Your task to perform on an android device: Search for "razer blade" on walmart.com, select the first entry, add it to the cart, then select checkout. Image 0: 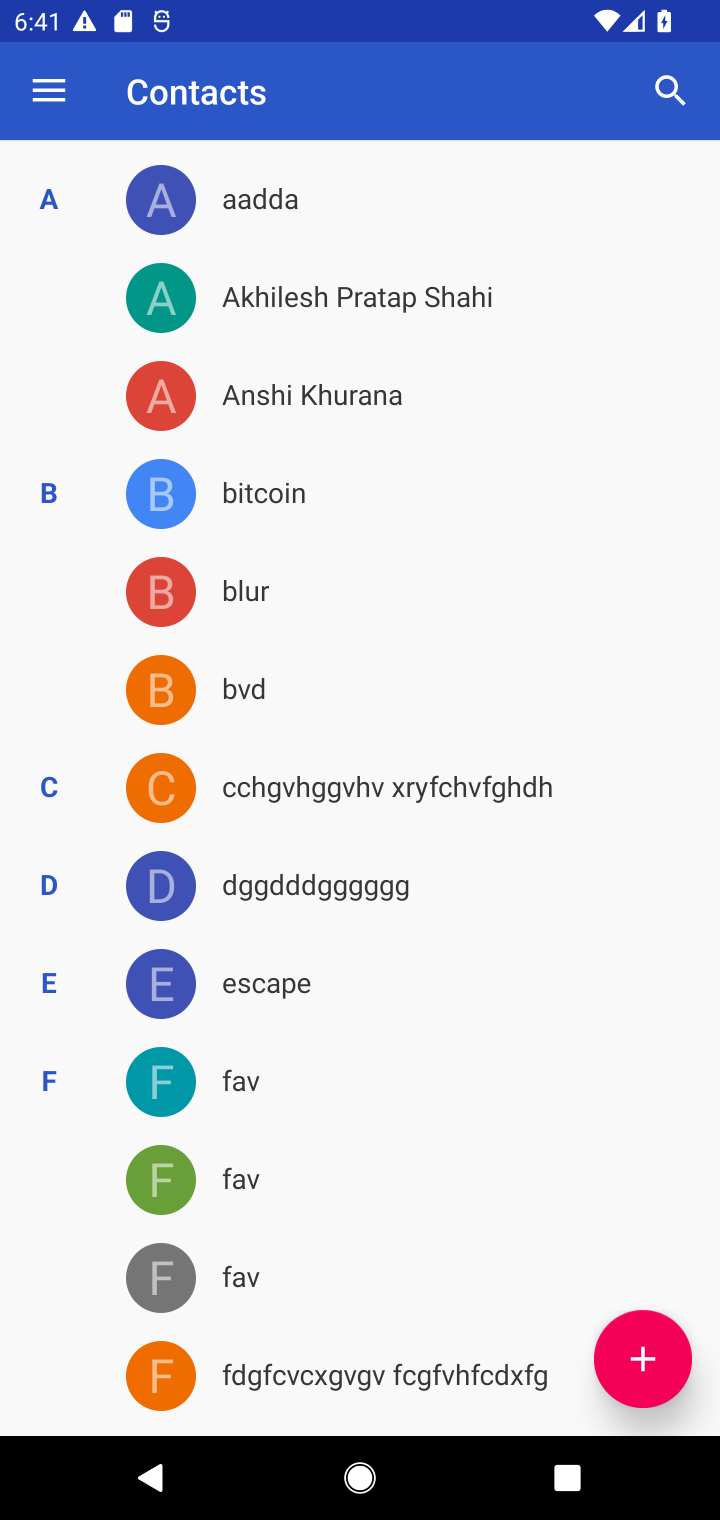
Step 0: press home button
Your task to perform on an android device: Search for "razer blade" on walmart.com, select the first entry, add it to the cart, then select checkout. Image 1: 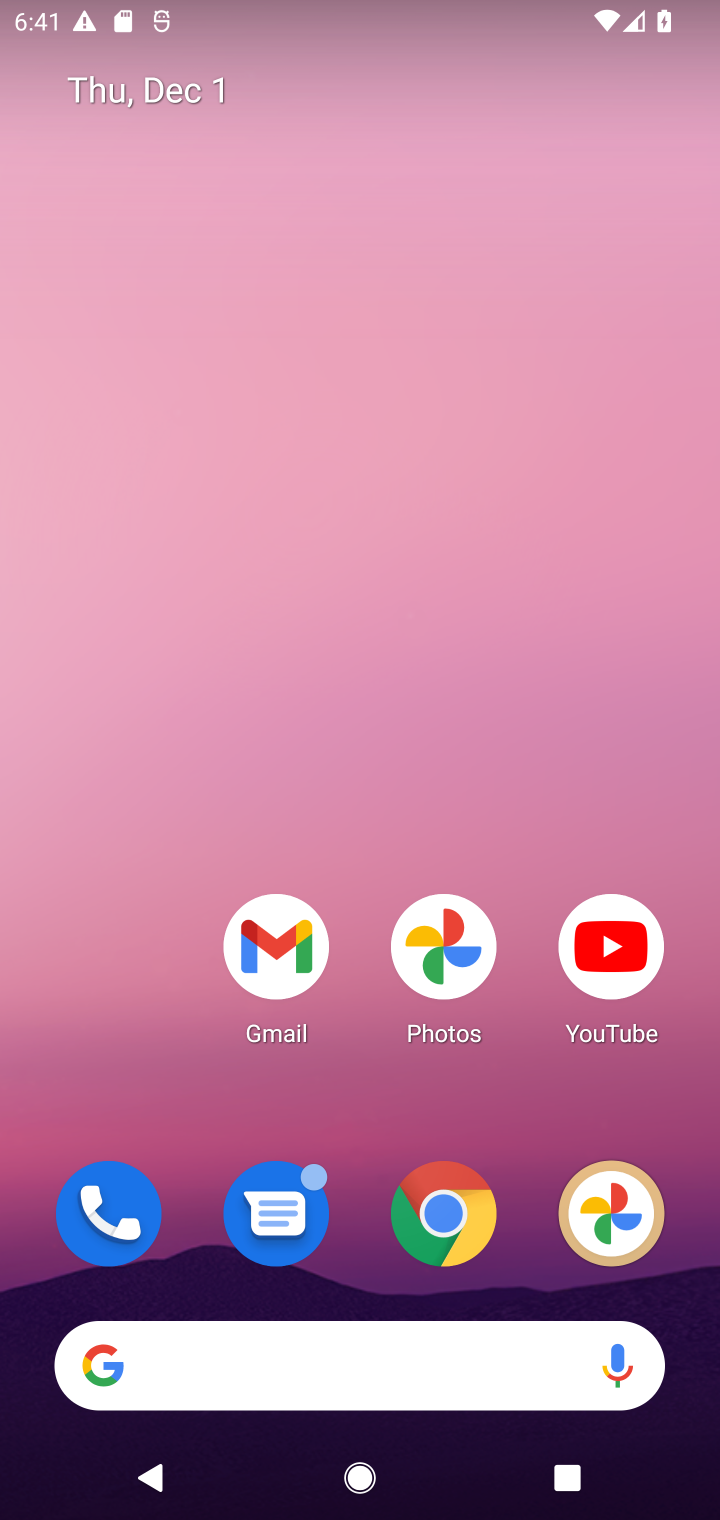
Step 1: click (435, 1344)
Your task to perform on an android device: Search for "razer blade" on walmart.com, select the first entry, add it to the cart, then select checkout. Image 2: 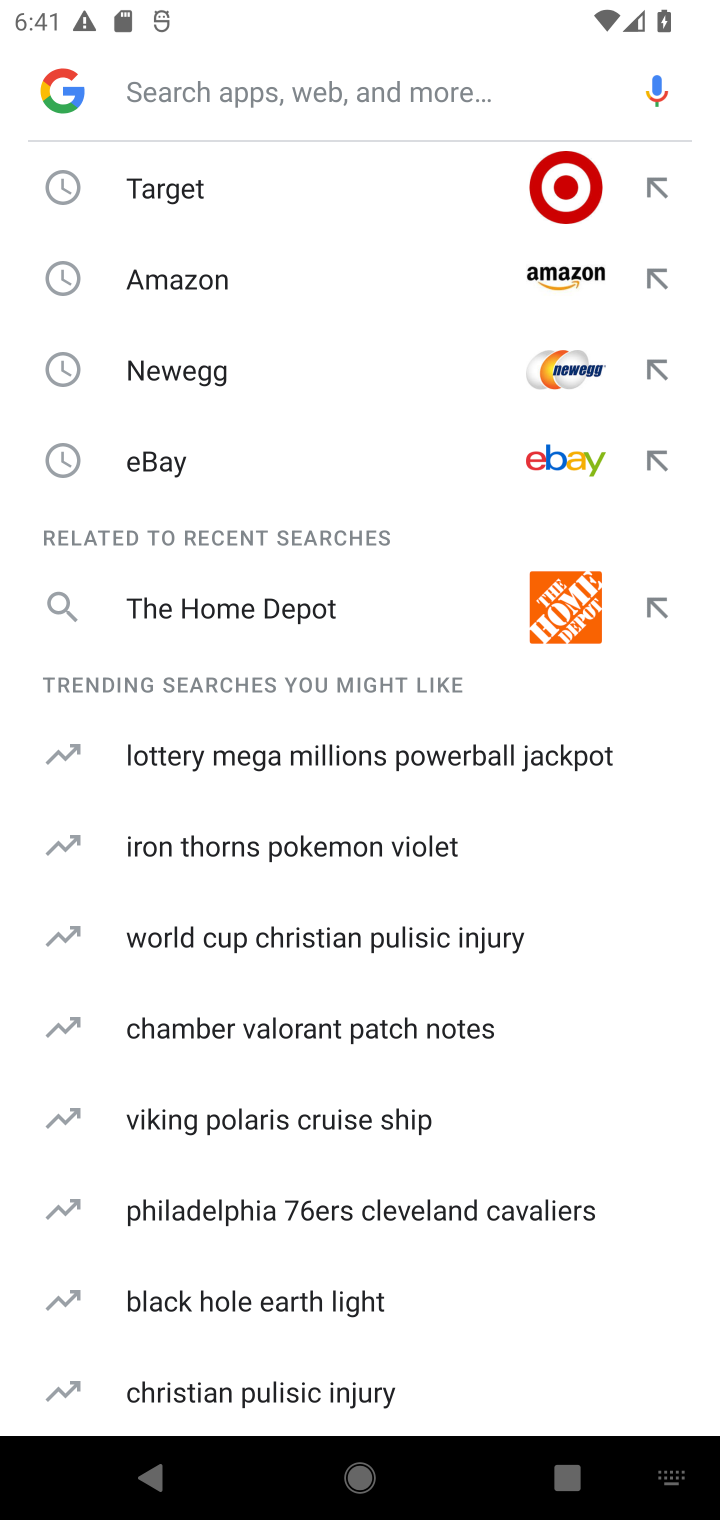
Step 2: type "walmart"
Your task to perform on an android device: Search for "razer blade" on walmart.com, select the first entry, add it to the cart, then select checkout. Image 3: 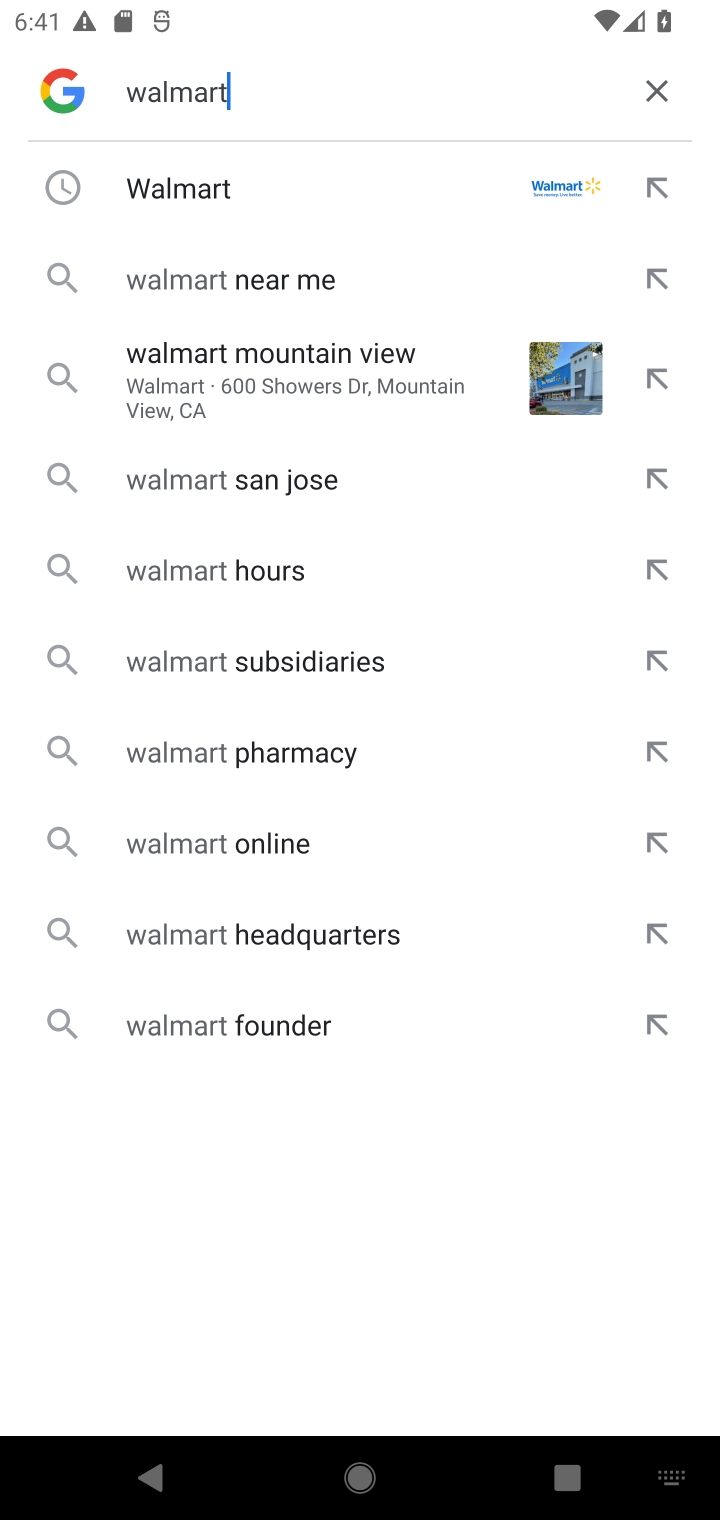
Step 3: click (140, 181)
Your task to perform on an android device: Search for "razer blade" on walmart.com, select the first entry, add it to the cart, then select checkout. Image 4: 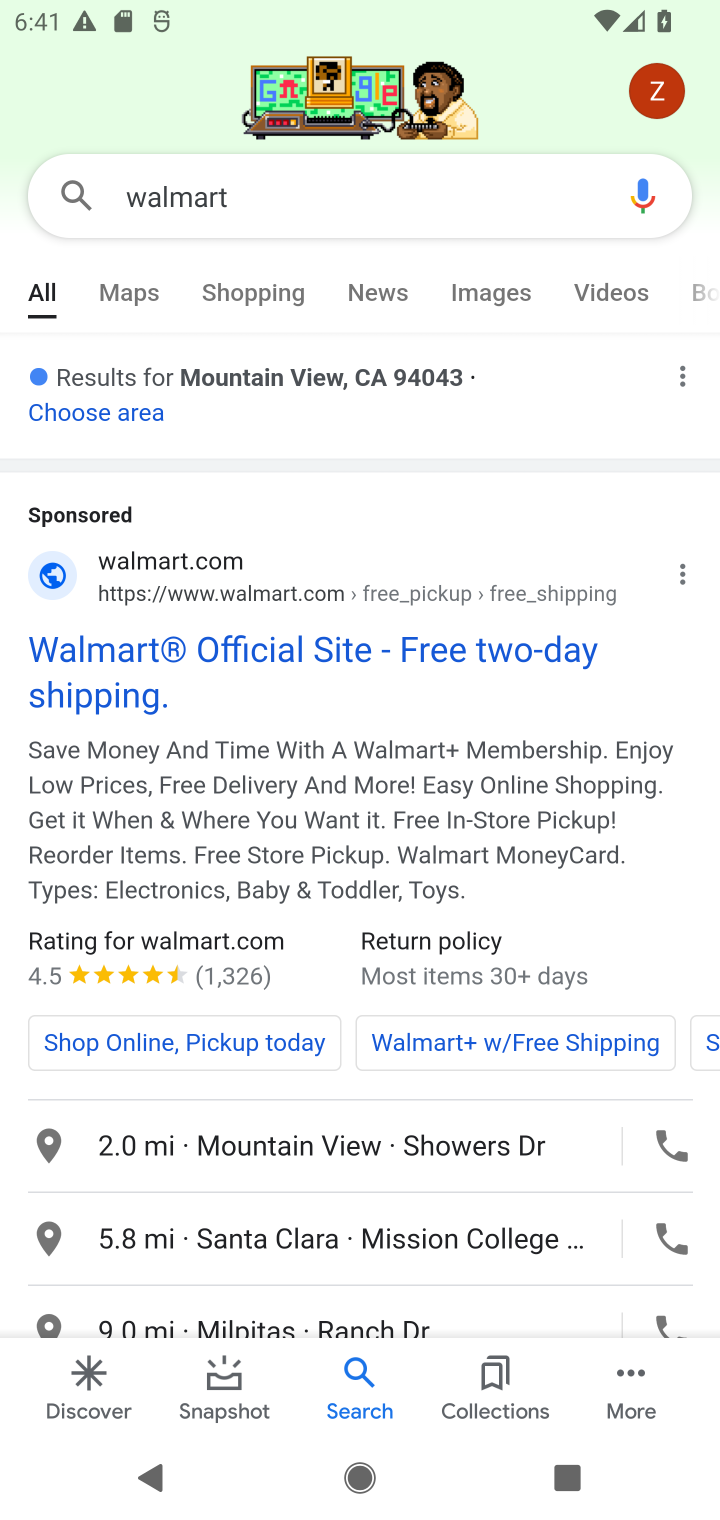
Step 4: click (151, 636)
Your task to perform on an android device: Search for "razer blade" on walmart.com, select the first entry, add it to the cart, then select checkout. Image 5: 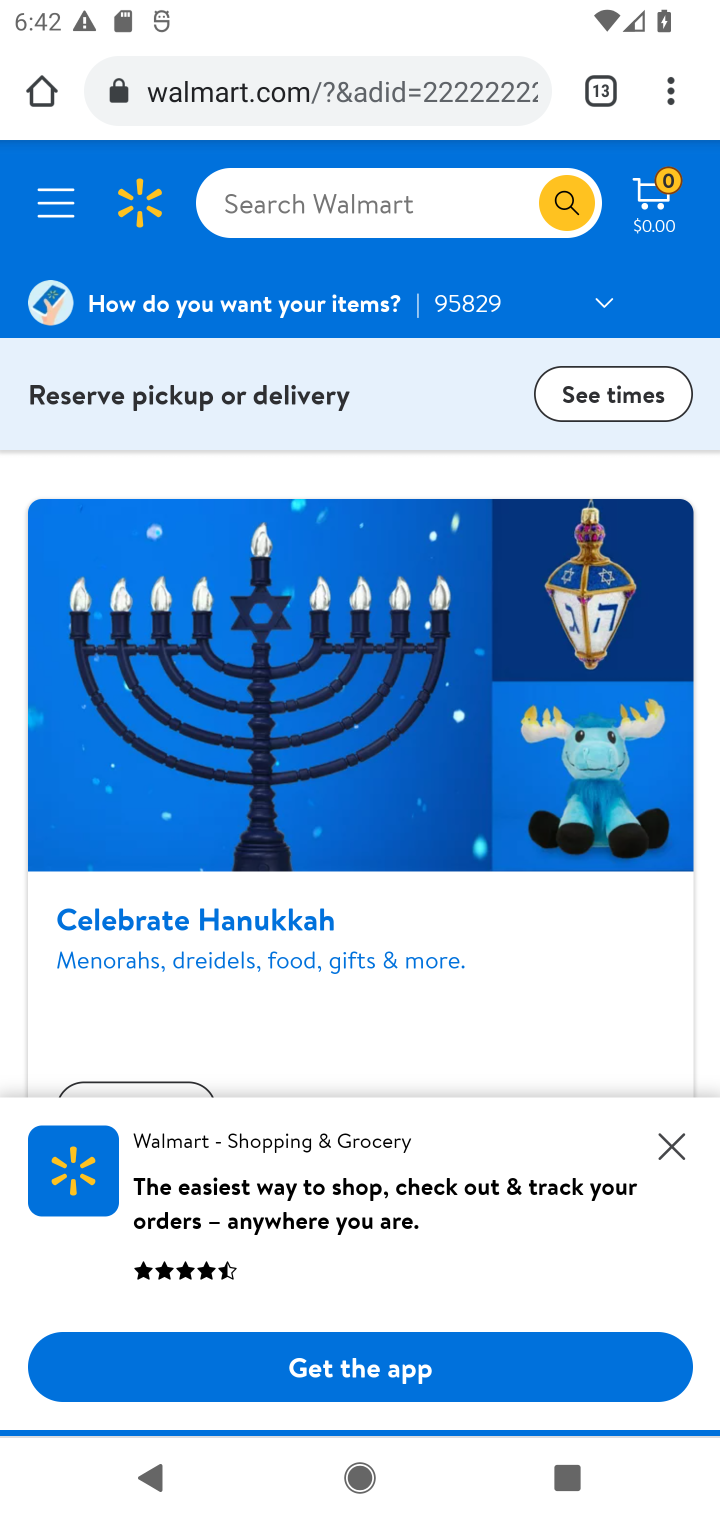
Step 5: click (633, 1155)
Your task to perform on an android device: Search for "razer blade" on walmart.com, select the first entry, add it to the cart, then select checkout. Image 6: 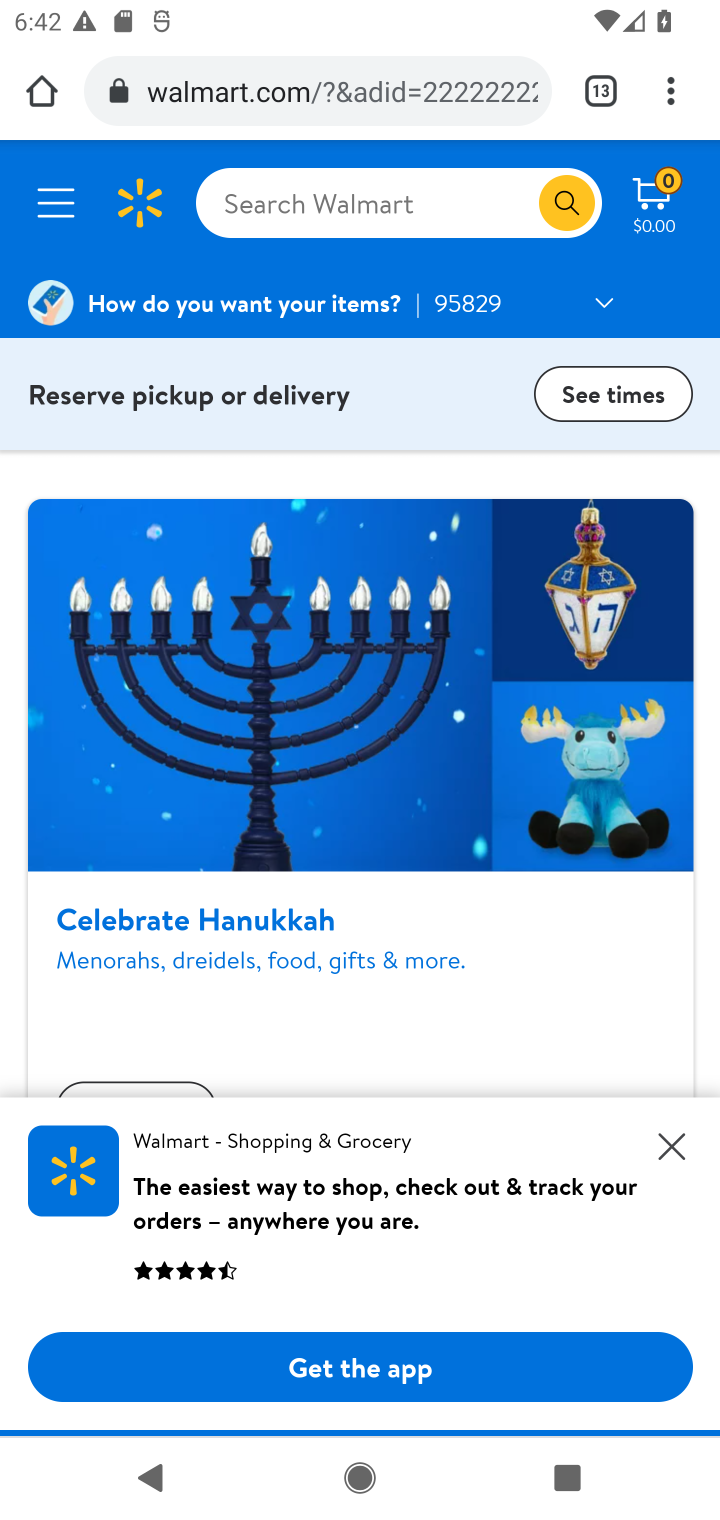
Step 6: click (389, 201)
Your task to perform on an android device: Search for "razer blade" on walmart.com, select the first entry, add it to the cart, then select checkout. Image 7: 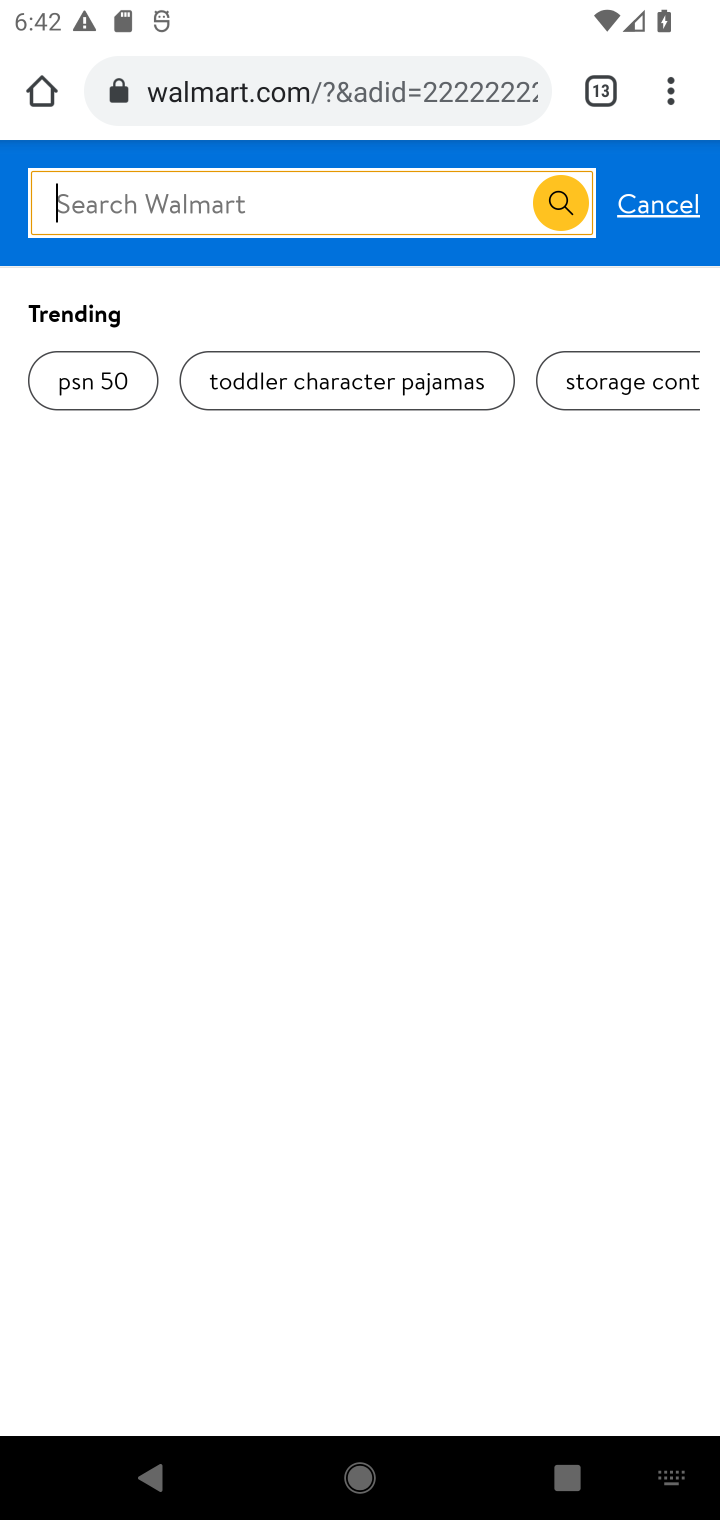
Step 7: type "razerblade"
Your task to perform on an android device: Search for "razer blade" on walmart.com, select the first entry, add it to the cart, then select checkout. Image 8: 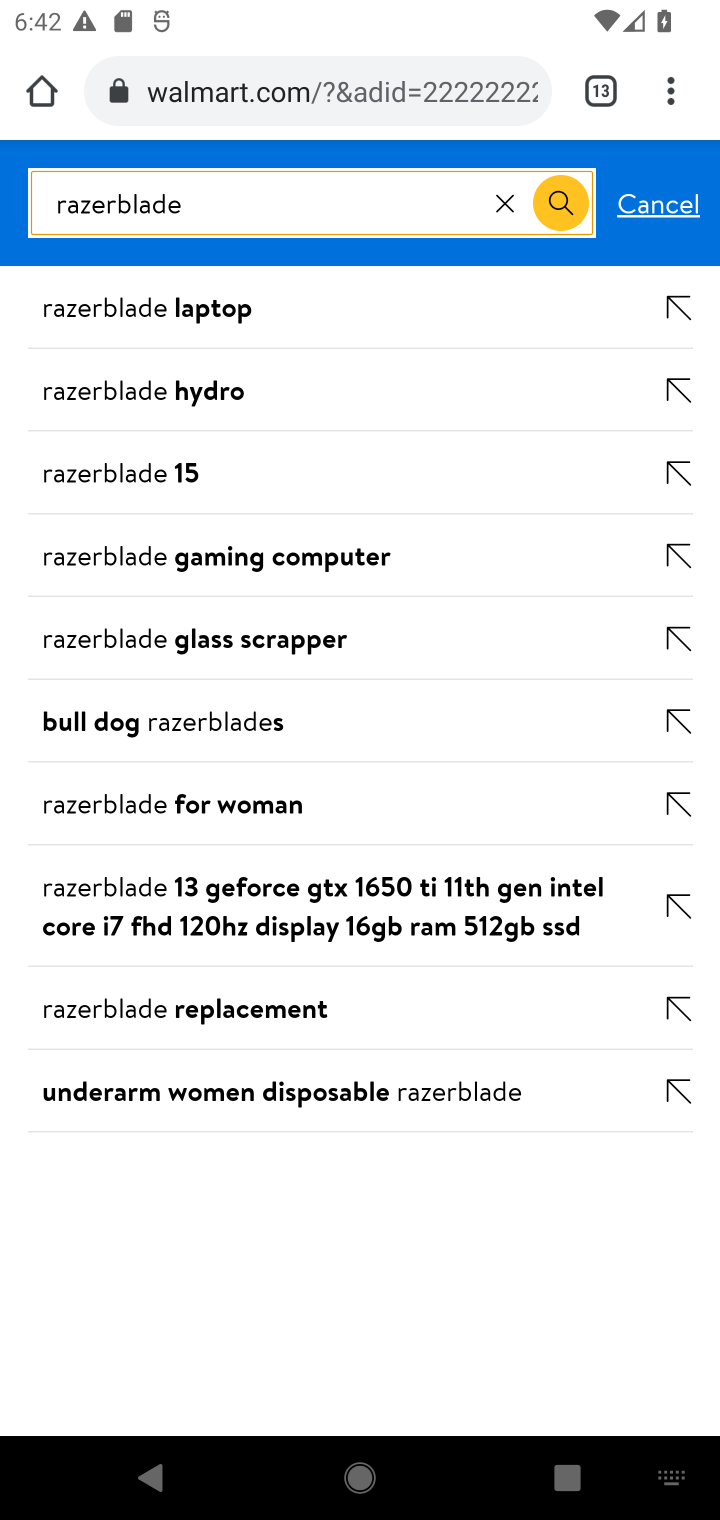
Step 8: click (209, 373)
Your task to perform on an android device: Search for "razer blade" on walmart.com, select the first entry, add it to the cart, then select checkout. Image 9: 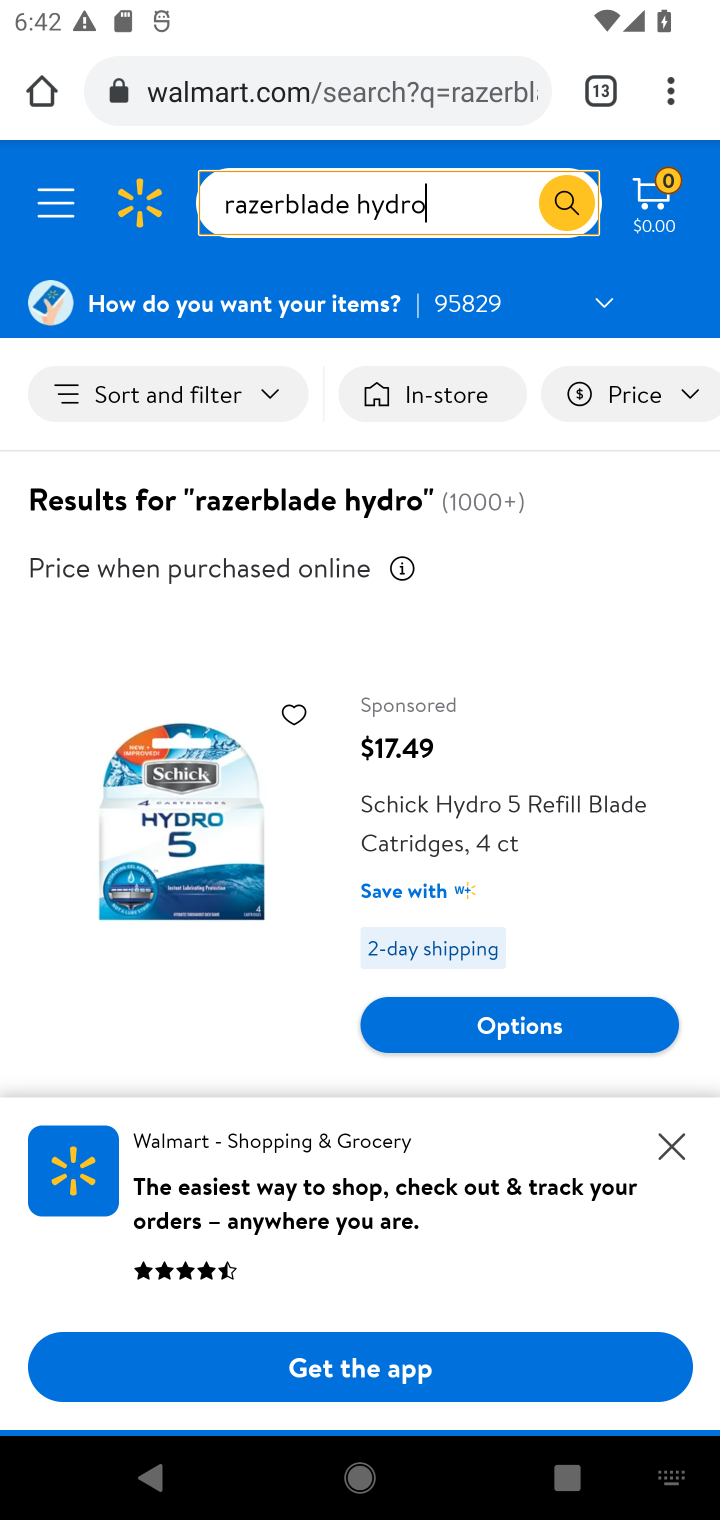
Step 9: click (685, 1142)
Your task to perform on an android device: Search for "razer blade" on walmart.com, select the first entry, add it to the cart, then select checkout. Image 10: 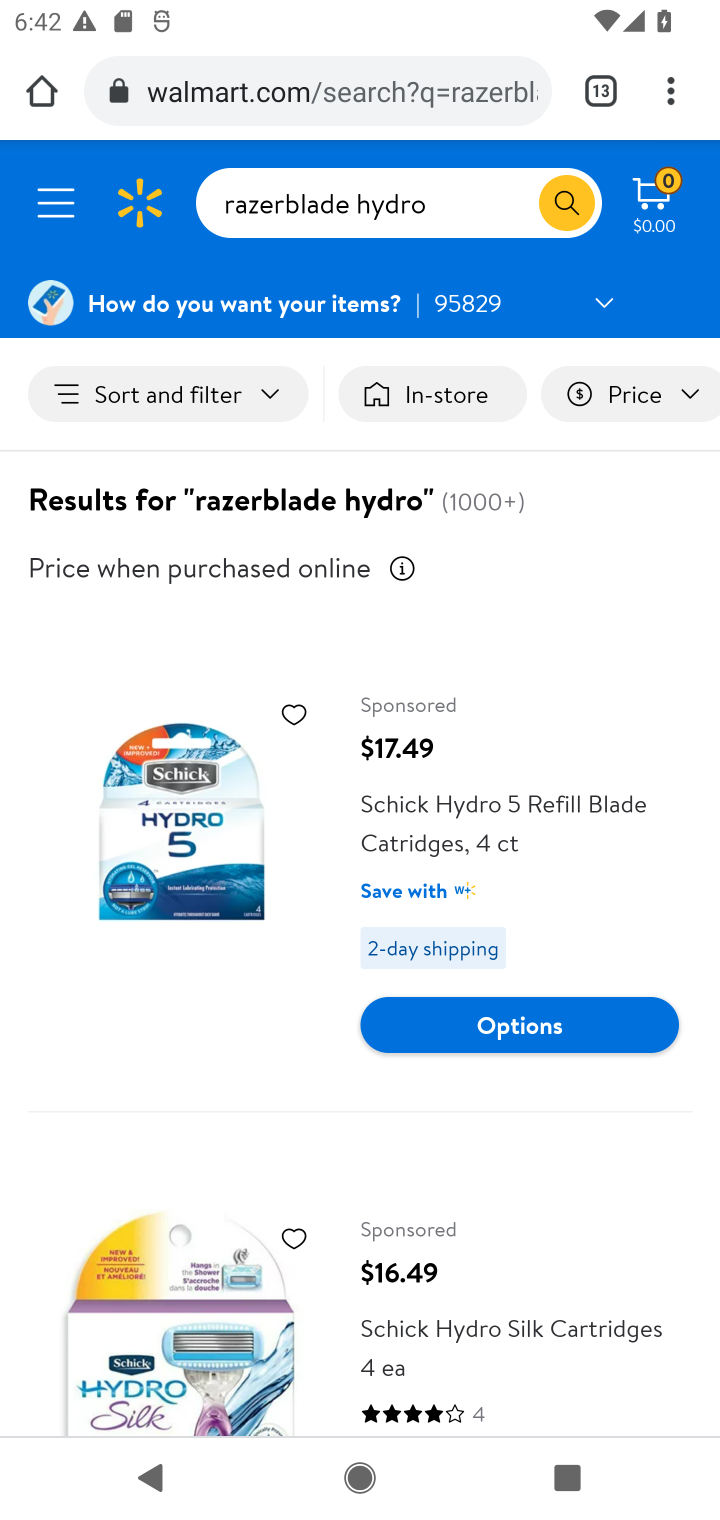
Step 10: click (471, 1067)
Your task to perform on an android device: Search for "razer blade" on walmart.com, select the first entry, add it to the cart, then select checkout. Image 11: 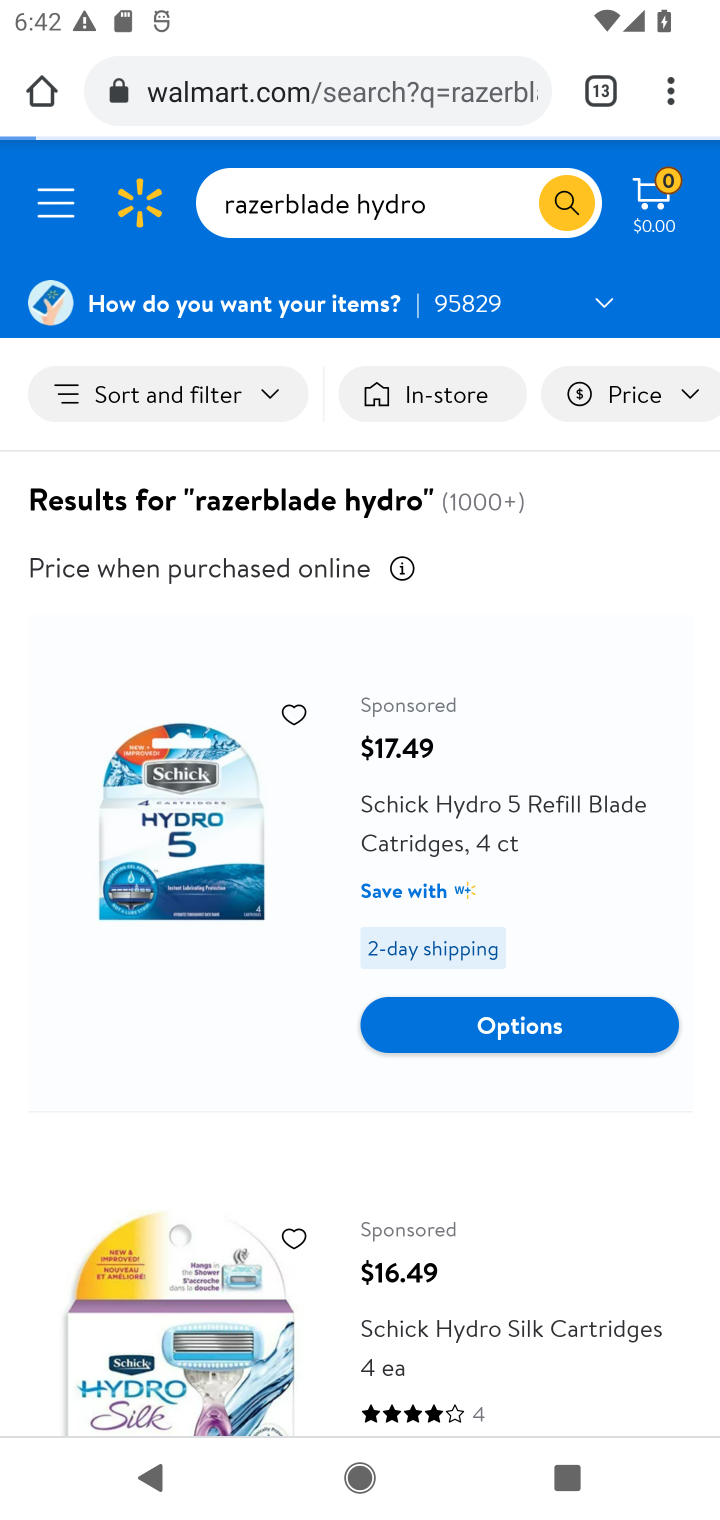
Step 11: click (632, 972)
Your task to perform on an android device: Search for "razer blade" on walmart.com, select the first entry, add it to the cart, then select checkout. Image 12: 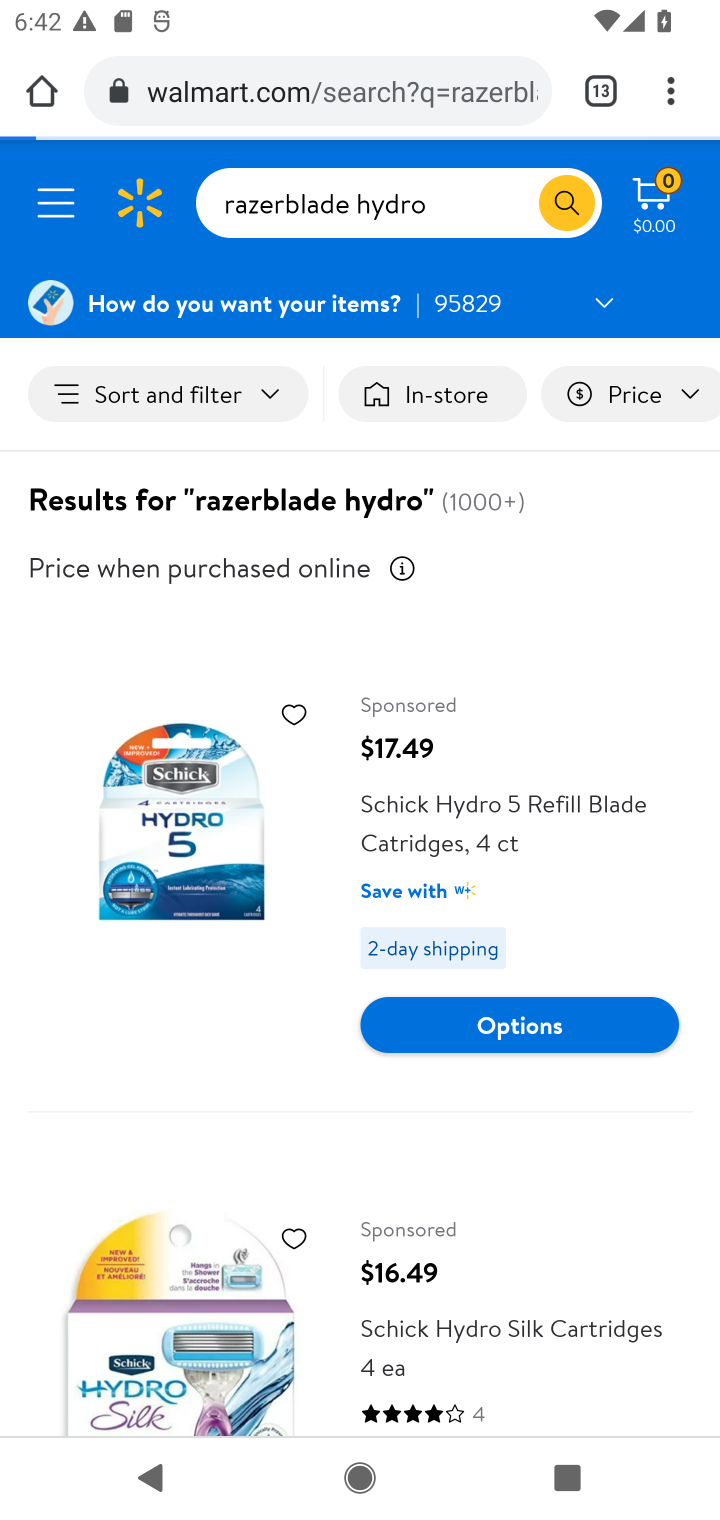
Step 12: task complete